Your task to perform on an android device: turn off wifi Image 0: 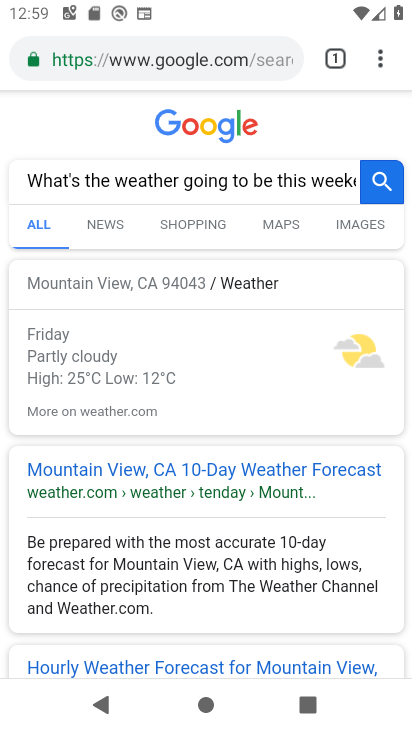
Step 0: press home button
Your task to perform on an android device: turn off wifi Image 1: 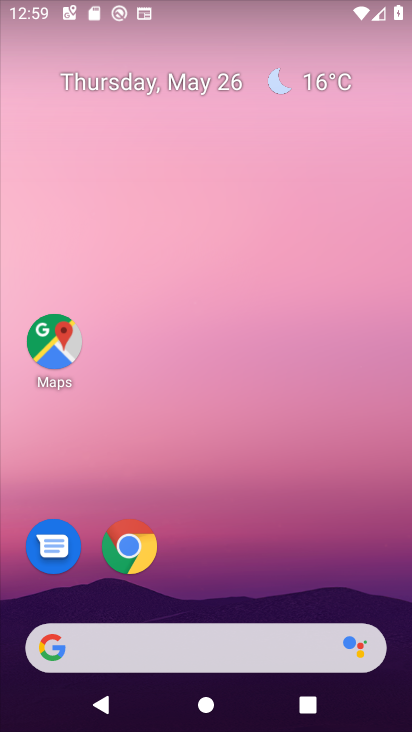
Step 1: drag from (169, 580) to (178, 270)
Your task to perform on an android device: turn off wifi Image 2: 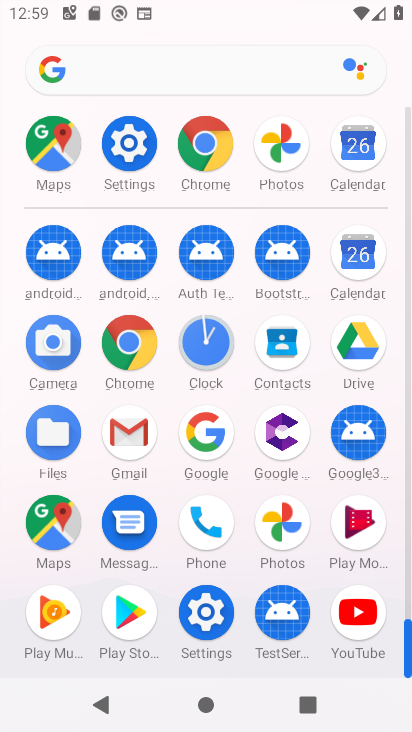
Step 2: click (125, 140)
Your task to perform on an android device: turn off wifi Image 3: 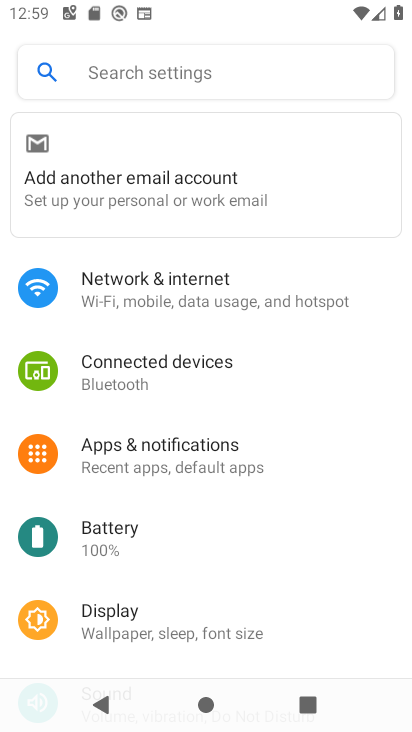
Step 3: click (194, 304)
Your task to perform on an android device: turn off wifi Image 4: 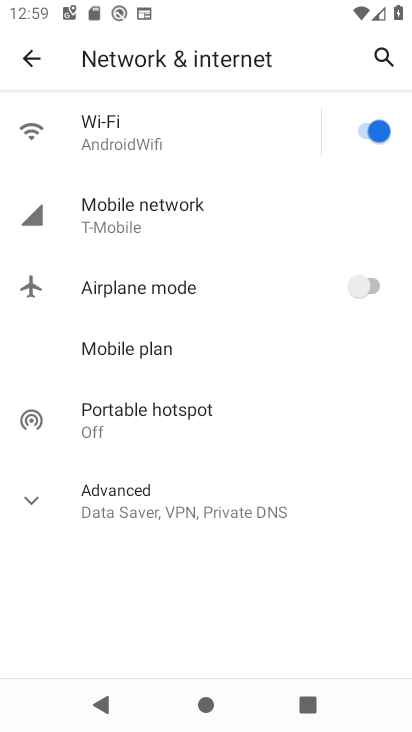
Step 4: click (362, 133)
Your task to perform on an android device: turn off wifi Image 5: 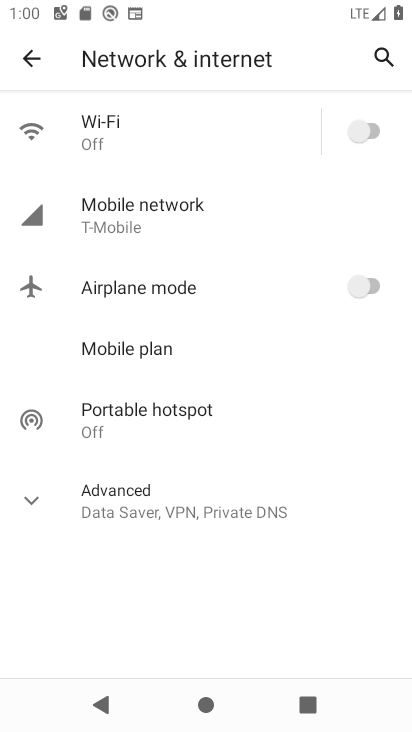
Step 5: task complete